Your task to perform on an android device: Show me the alarms in the clock app Image 0: 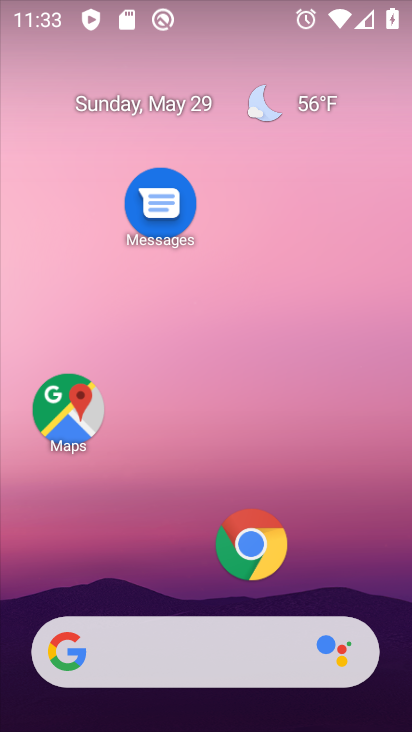
Step 0: drag from (216, 222) to (221, 91)
Your task to perform on an android device: Show me the alarms in the clock app Image 1: 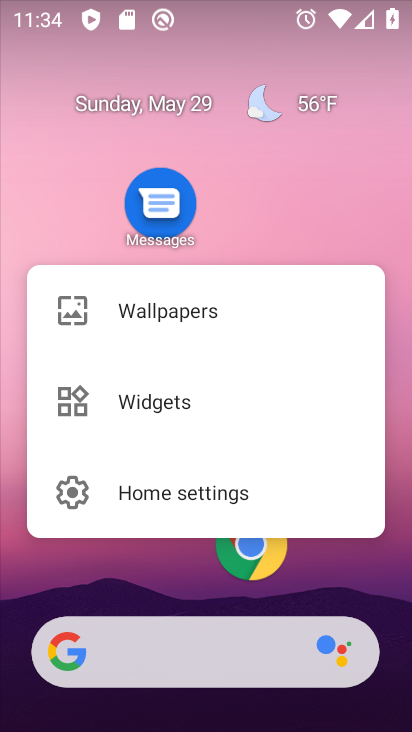
Step 1: click (282, 184)
Your task to perform on an android device: Show me the alarms in the clock app Image 2: 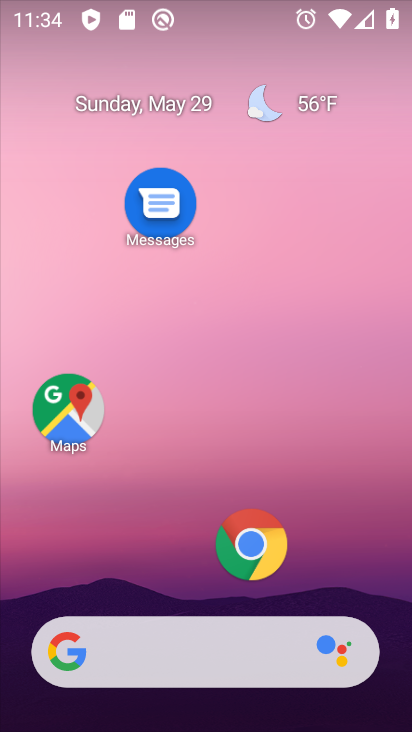
Step 2: drag from (195, 552) to (231, 101)
Your task to perform on an android device: Show me the alarms in the clock app Image 3: 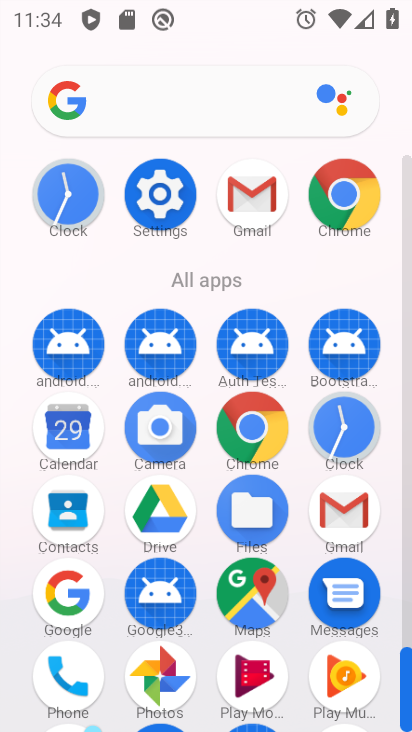
Step 3: click (339, 421)
Your task to perform on an android device: Show me the alarms in the clock app Image 4: 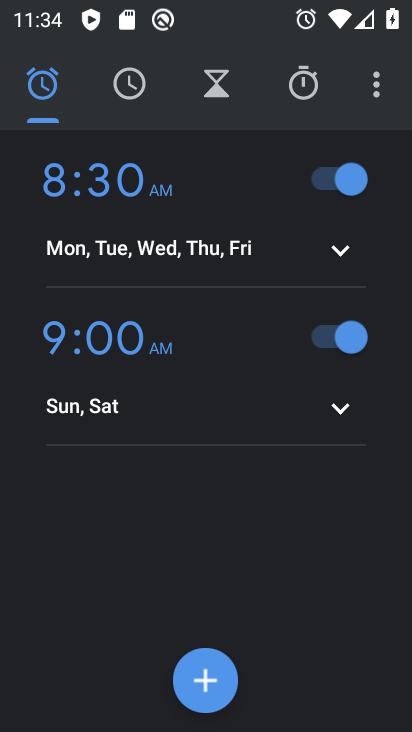
Step 4: task complete